Your task to perform on an android device: Search for sushi restaurants on Maps Image 0: 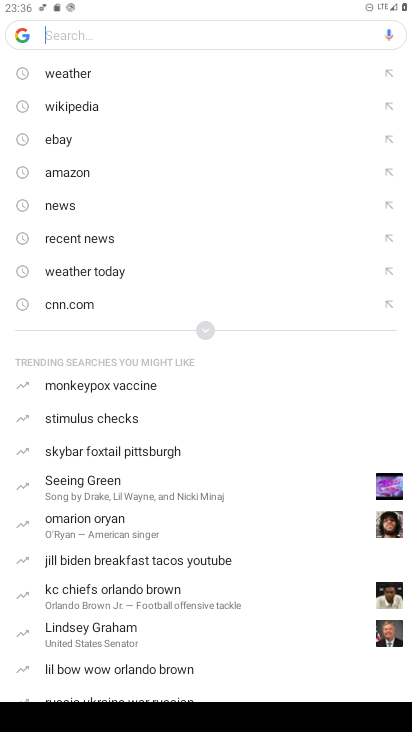
Step 0: press home button
Your task to perform on an android device: Search for sushi restaurants on Maps Image 1: 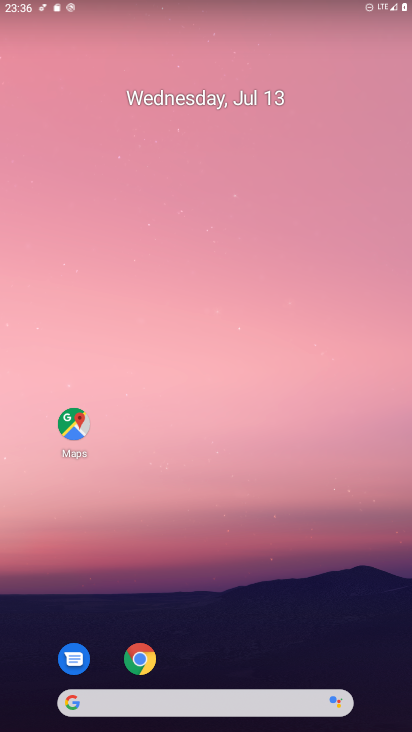
Step 1: click (72, 422)
Your task to perform on an android device: Search for sushi restaurants on Maps Image 2: 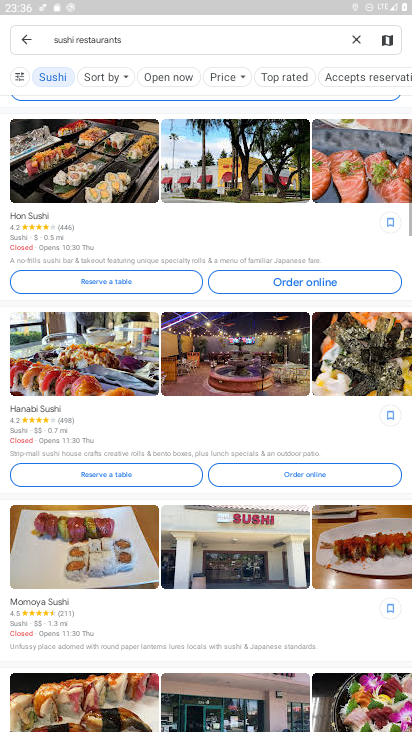
Step 2: click (353, 36)
Your task to perform on an android device: Search for sushi restaurants on Maps Image 3: 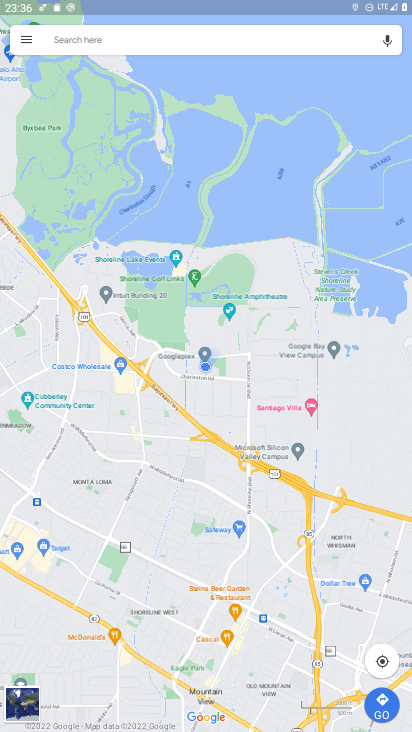
Step 3: click (140, 43)
Your task to perform on an android device: Search for sushi restaurants on Maps Image 4: 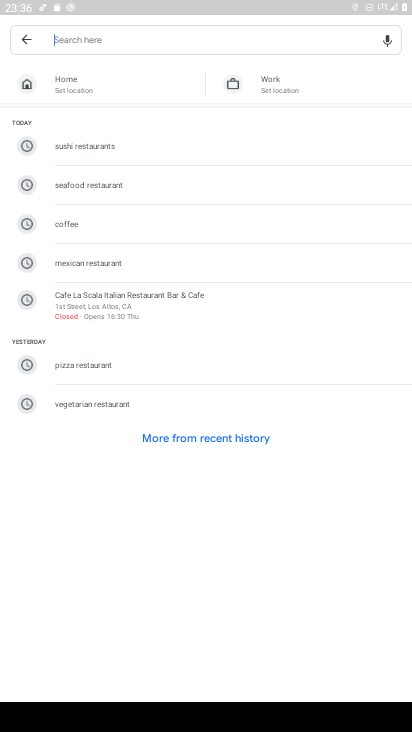
Step 4: type "sushi restaurants"
Your task to perform on an android device: Search for sushi restaurants on Maps Image 5: 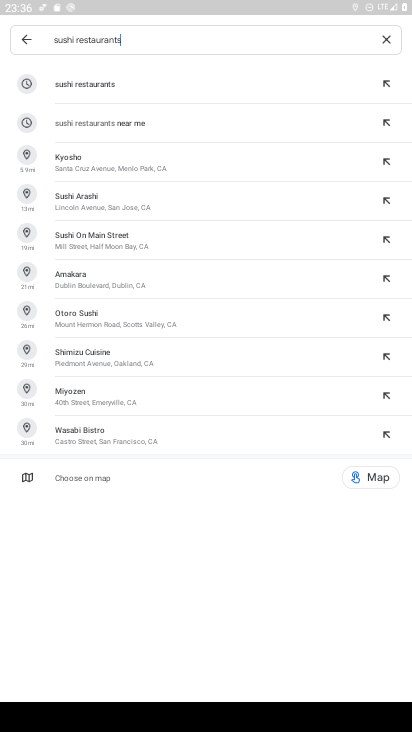
Step 5: click (103, 84)
Your task to perform on an android device: Search for sushi restaurants on Maps Image 6: 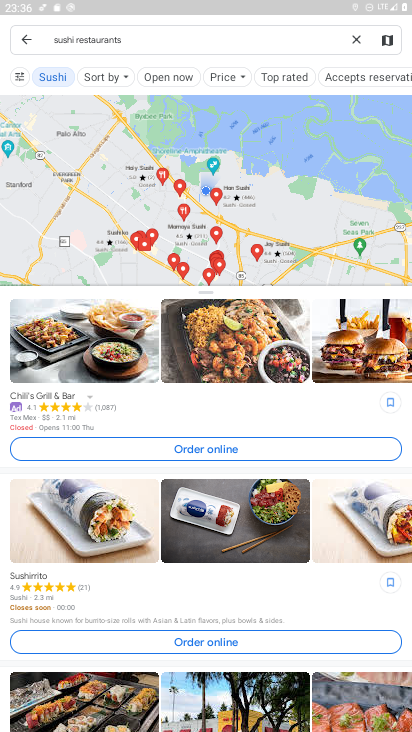
Step 6: task complete